Your task to perform on an android device: turn on priority inbox in the gmail app Image 0: 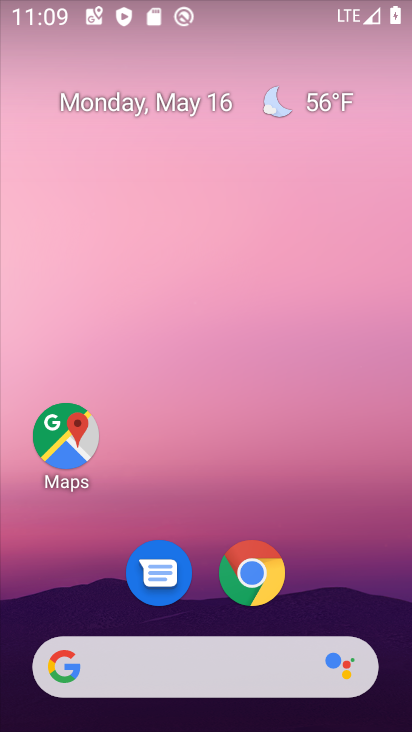
Step 0: drag from (153, 723) to (242, 1)
Your task to perform on an android device: turn on priority inbox in the gmail app Image 1: 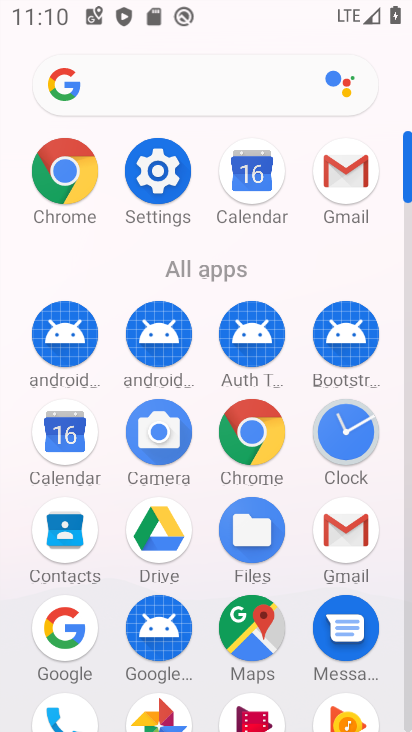
Step 1: click (350, 533)
Your task to perform on an android device: turn on priority inbox in the gmail app Image 2: 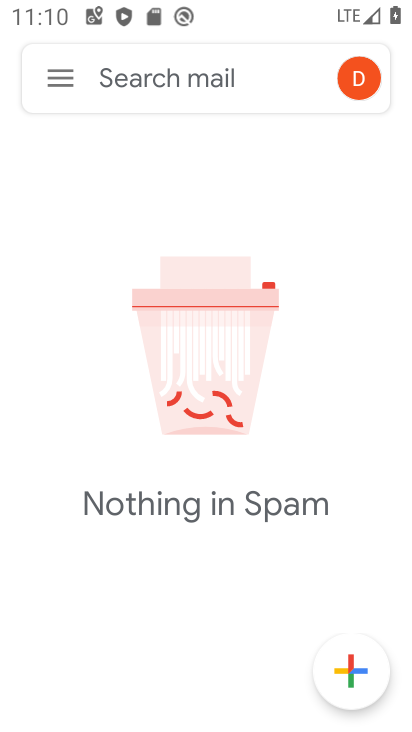
Step 2: click (54, 80)
Your task to perform on an android device: turn on priority inbox in the gmail app Image 3: 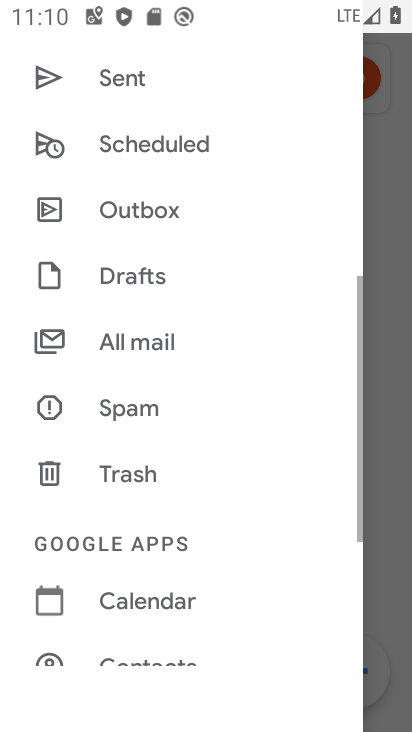
Step 3: drag from (173, 632) to (284, 26)
Your task to perform on an android device: turn on priority inbox in the gmail app Image 4: 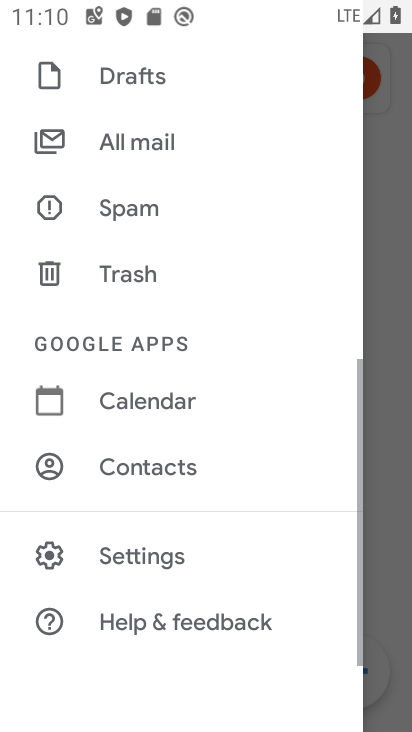
Step 4: click (126, 568)
Your task to perform on an android device: turn on priority inbox in the gmail app Image 5: 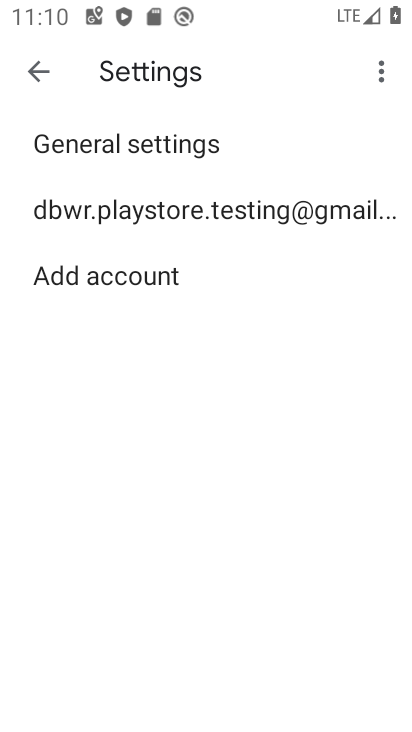
Step 5: click (191, 210)
Your task to perform on an android device: turn on priority inbox in the gmail app Image 6: 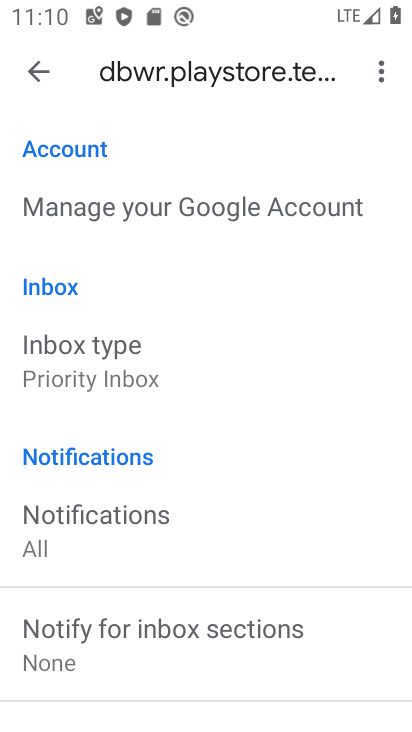
Step 6: task complete